Your task to perform on an android device: clear all cookies in the chrome app Image 0: 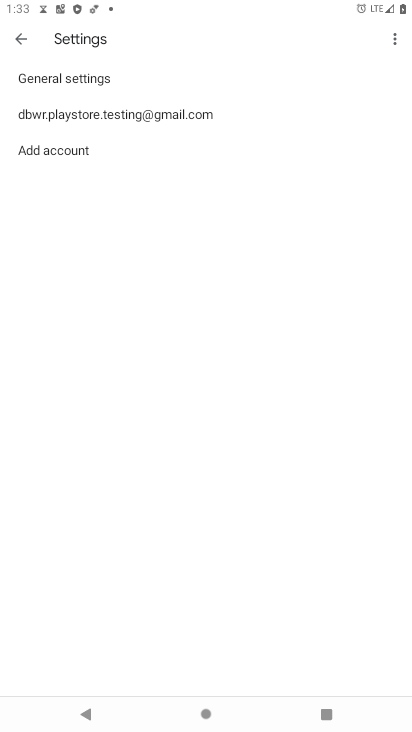
Step 0: press home button
Your task to perform on an android device: clear all cookies in the chrome app Image 1: 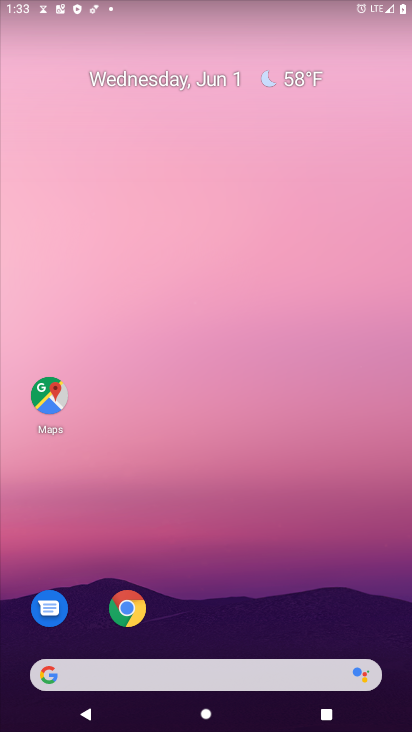
Step 1: click (135, 613)
Your task to perform on an android device: clear all cookies in the chrome app Image 2: 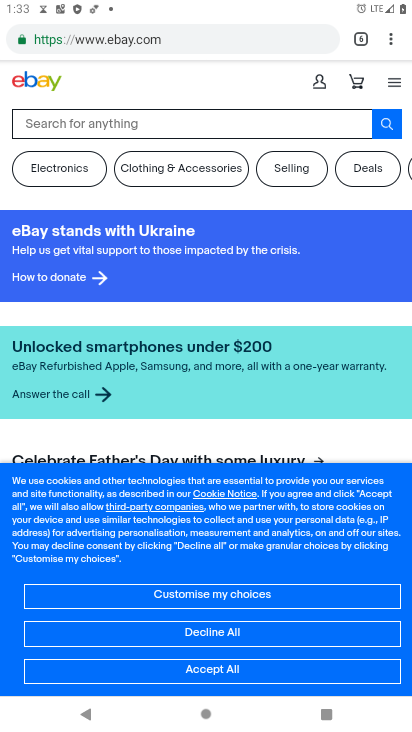
Step 2: click (395, 30)
Your task to perform on an android device: clear all cookies in the chrome app Image 3: 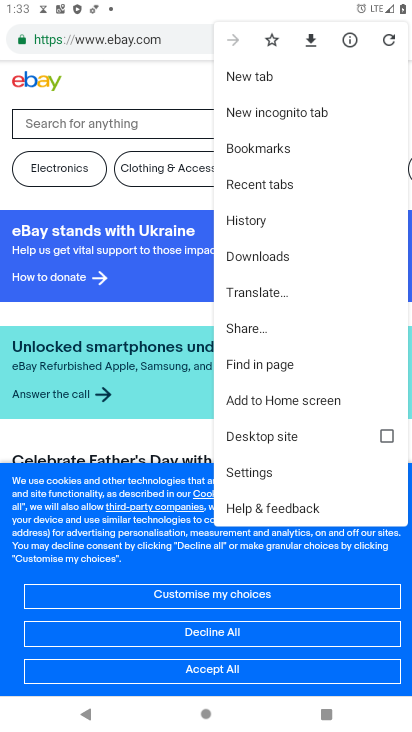
Step 3: click (273, 475)
Your task to perform on an android device: clear all cookies in the chrome app Image 4: 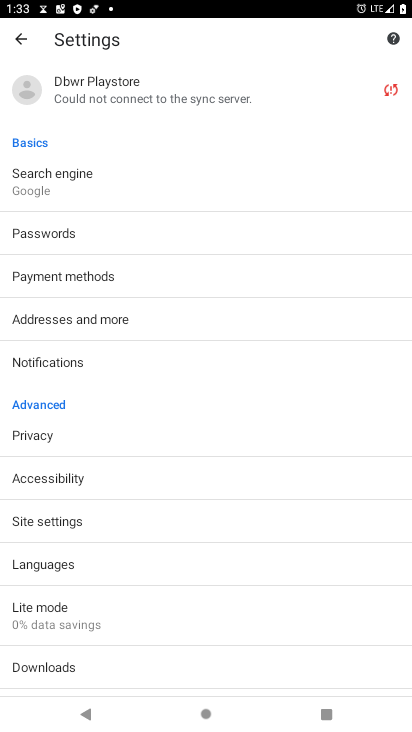
Step 4: click (120, 527)
Your task to perform on an android device: clear all cookies in the chrome app Image 5: 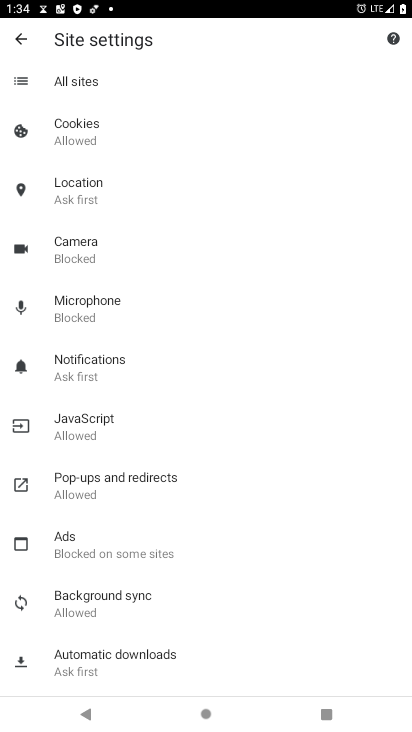
Step 5: click (98, 125)
Your task to perform on an android device: clear all cookies in the chrome app Image 6: 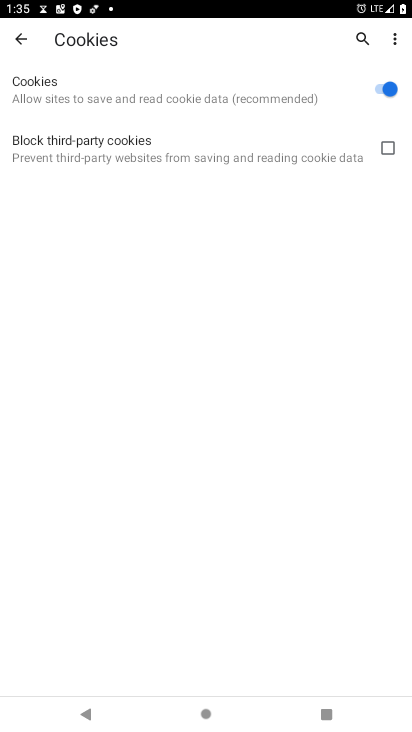
Step 6: click (17, 40)
Your task to perform on an android device: clear all cookies in the chrome app Image 7: 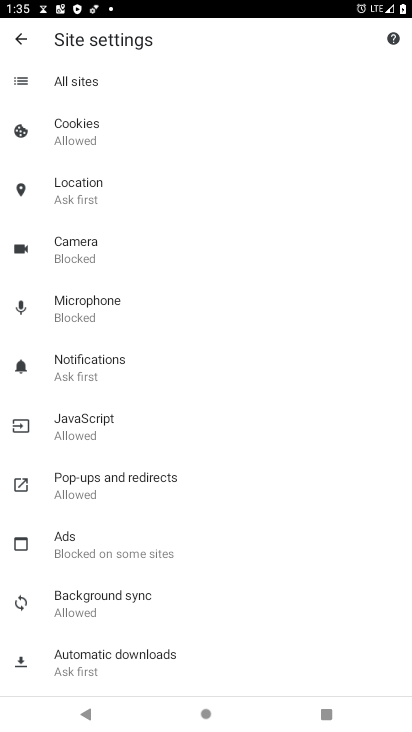
Step 7: drag from (171, 649) to (214, 271)
Your task to perform on an android device: clear all cookies in the chrome app Image 8: 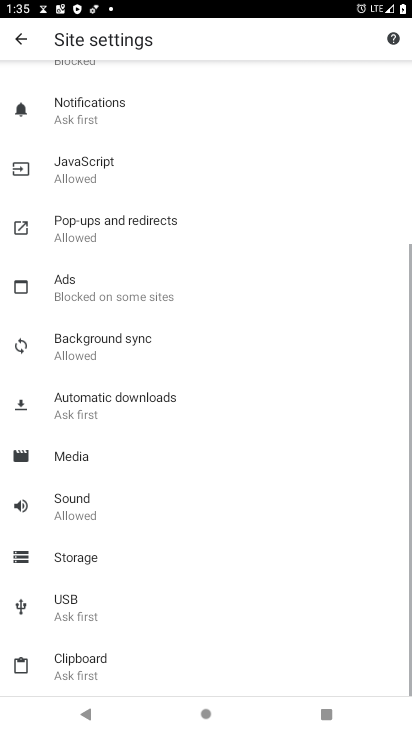
Step 8: drag from (182, 540) to (198, 184)
Your task to perform on an android device: clear all cookies in the chrome app Image 9: 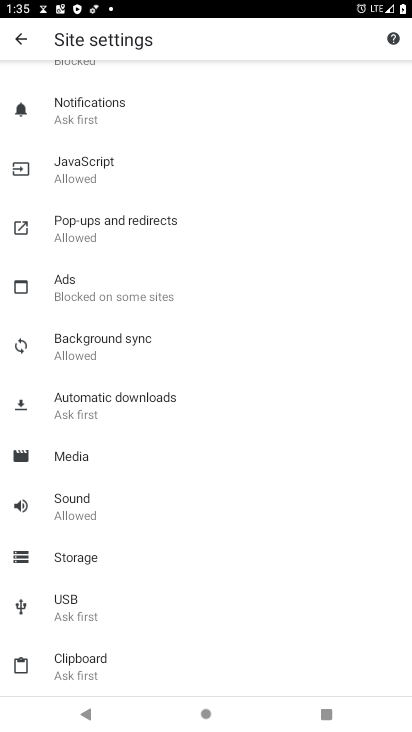
Step 9: drag from (249, 191) to (265, 599)
Your task to perform on an android device: clear all cookies in the chrome app Image 10: 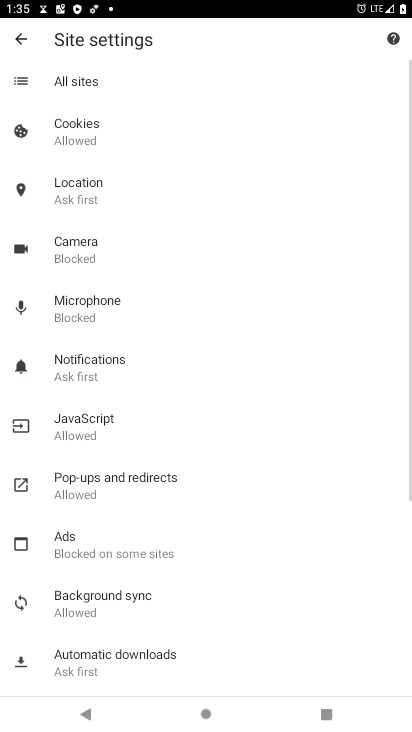
Step 10: drag from (317, 271) to (307, 730)
Your task to perform on an android device: clear all cookies in the chrome app Image 11: 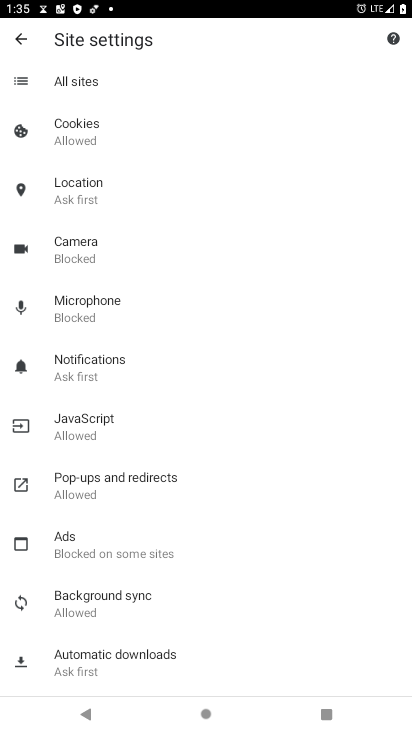
Step 11: press back button
Your task to perform on an android device: clear all cookies in the chrome app Image 12: 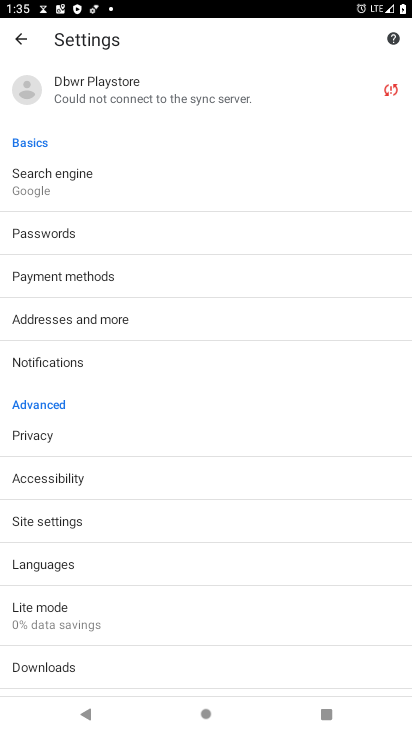
Step 12: drag from (205, 582) to (231, 181)
Your task to perform on an android device: clear all cookies in the chrome app Image 13: 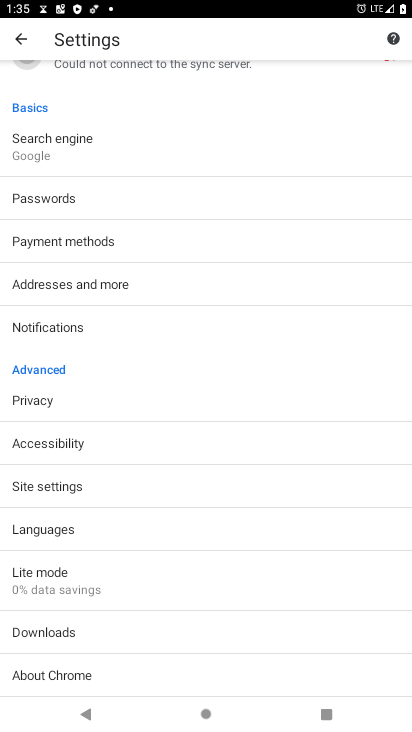
Step 13: click (115, 413)
Your task to perform on an android device: clear all cookies in the chrome app Image 14: 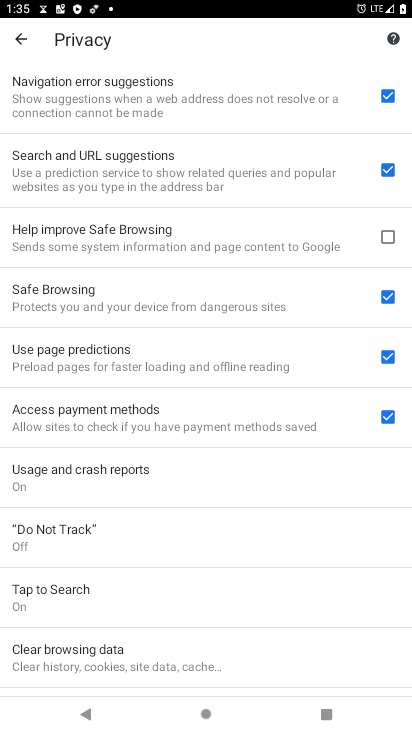
Step 14: press back button
Your task to perform on an android device: clear all cookies in the chrome app Image 15: 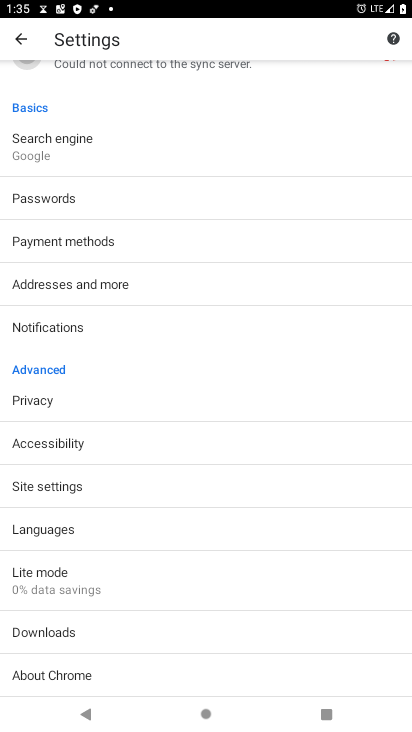
Step 15: drag from (208, 177) to (215, 576)
Your task to perform on an android device: clear all cookies in the chrome app Image 16: 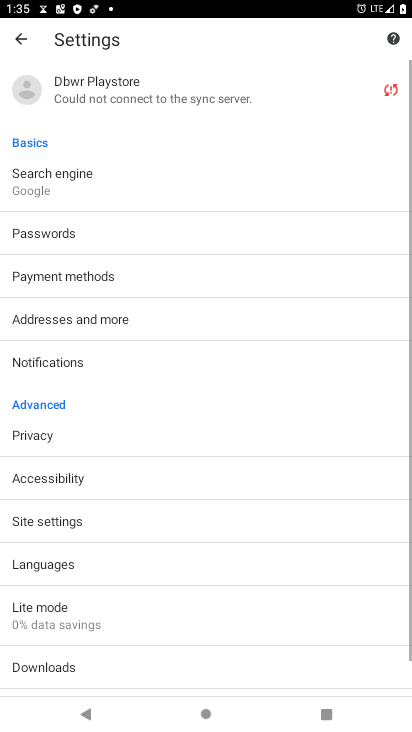
Step 16: drag from (192, 402) to (282, 90)
Your task to perform on an android device: clear all cookies in the chrome app Image 17: 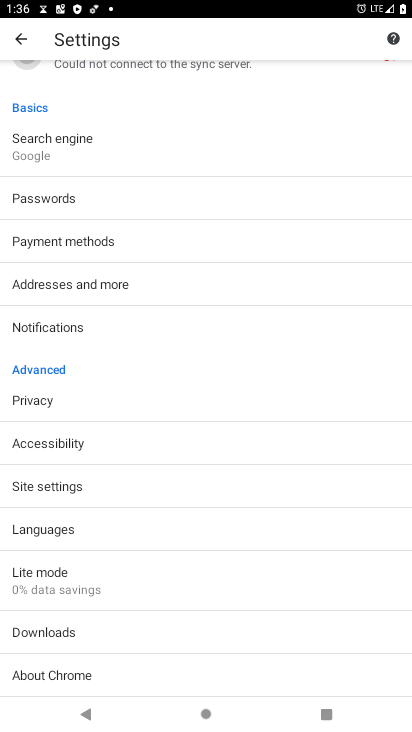
Step 17: click (102, 478)
Your task to perform on an android device: clear all cookies in the chrome app Image 18: 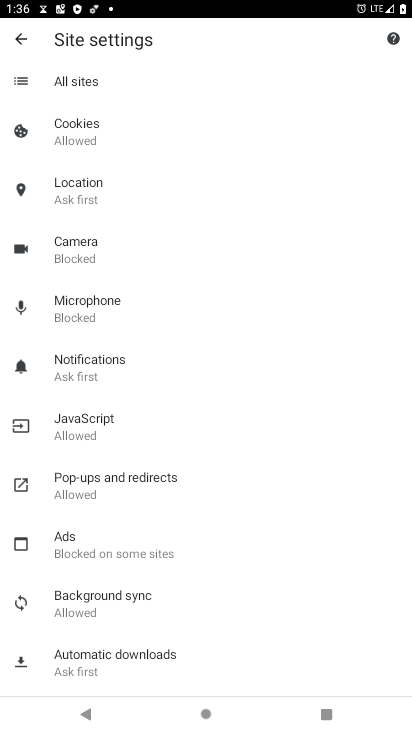
Step 18: click (106, 147)
Your task to perform on an android device: clear all cookies in the chrome app Image 19: 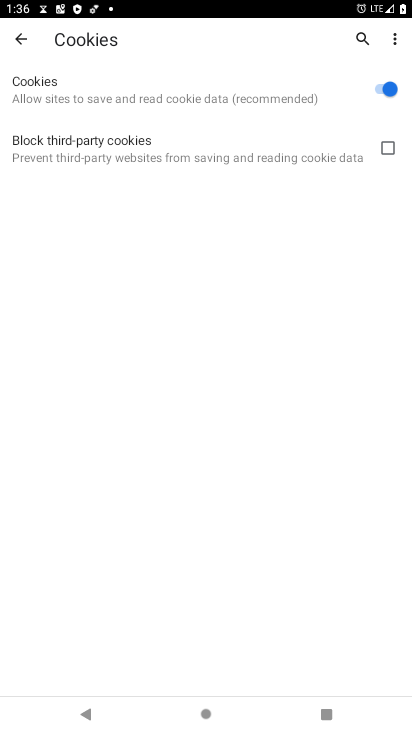
Step 19: click (376, 88)
Your task to perform on an android device: clear all cookies in the chrome app Image 20: 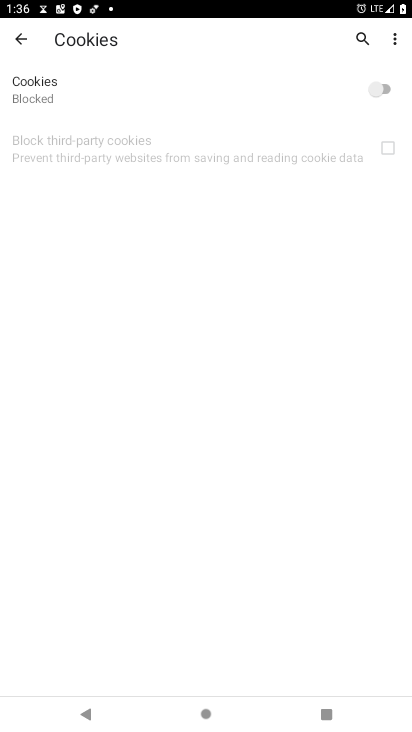
Step 20: task complete